Your task to perform on an android device: Open Yahoo.com Image 0: 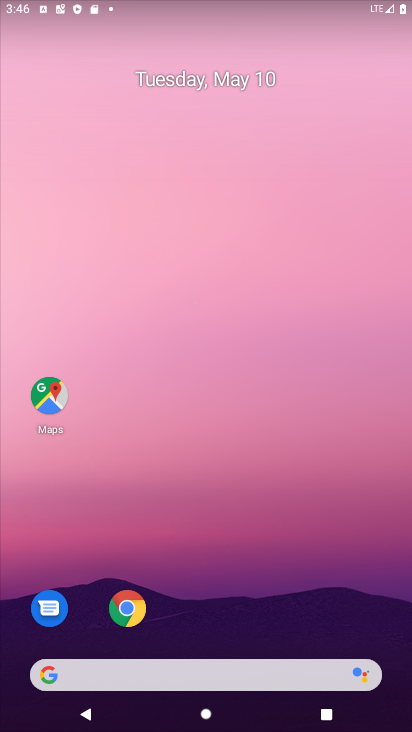
Step 0: click (129, 604)
Your task to perform on an android device: Open Yahoo.com Image 1: 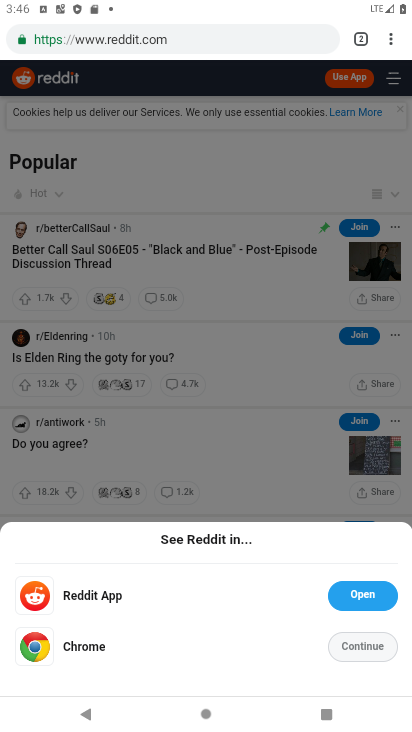
Step 1: click (135, 35)
Your task to perform on an android device: Open Yahoo.com Image 2: 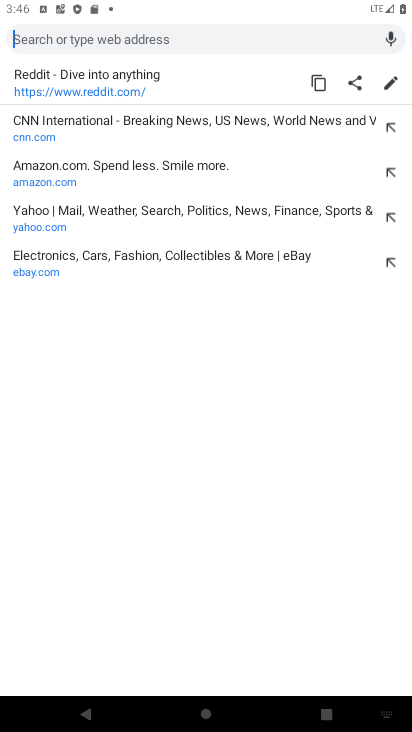
Step 2: type "yahoo"
Your task to perform on an android device: Open Yahoo.com Image 3: 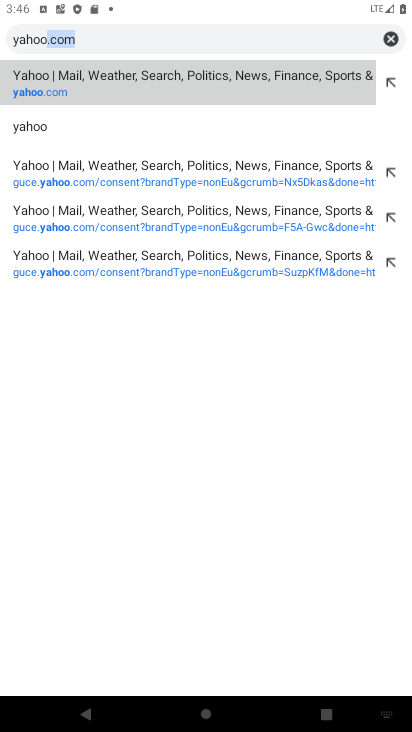
Step 3: click (42, 92)
Your task to perform on an android device: Open Yahoo.com Image 4: 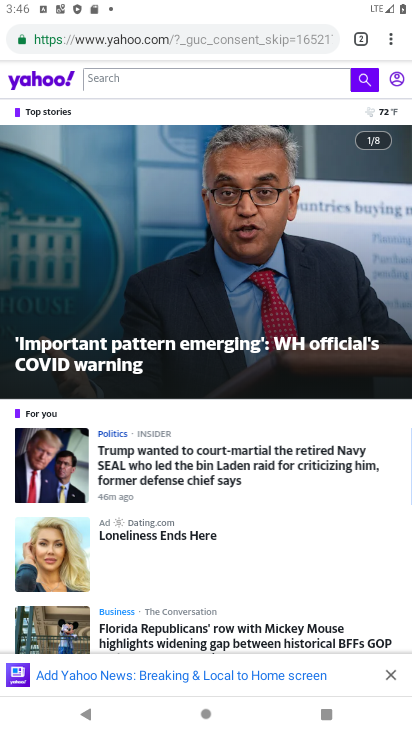
Step 4: task complete